Your task to perform on an android device: Open Google Image 0: 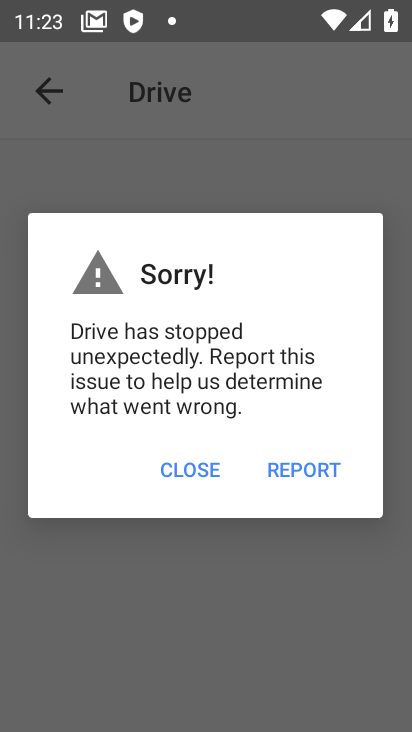
Step 0: press home button
Your task to perform on an android device: Open Google Image 1: 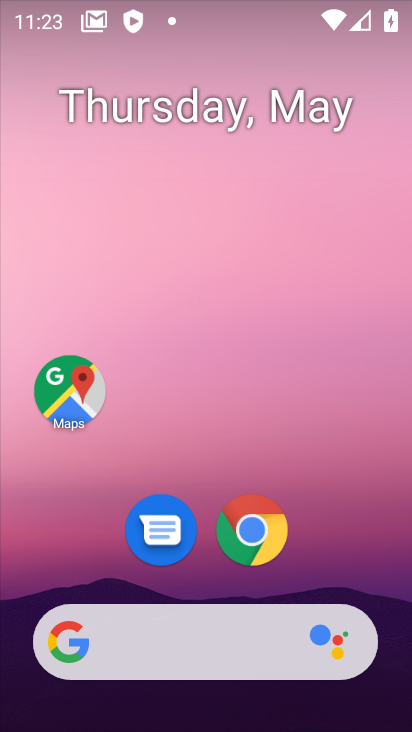
Step 1: drag from (371, 553) to (357, 263)
Your task to perform on an android device: Open Google Image 2: 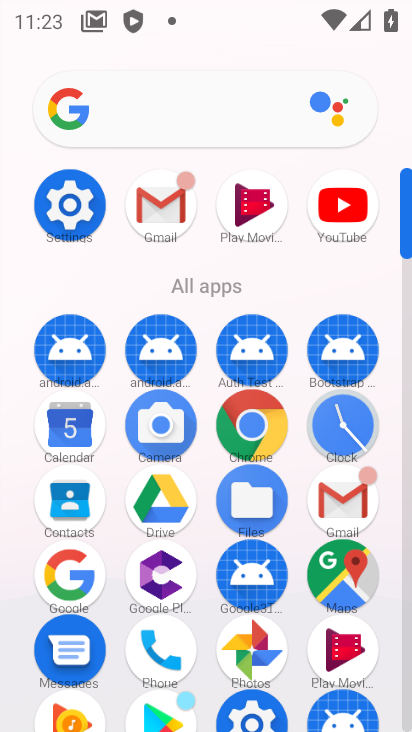
Step 2: click (75, 579)
Your task to perform on an android device: Open Google Image 3: 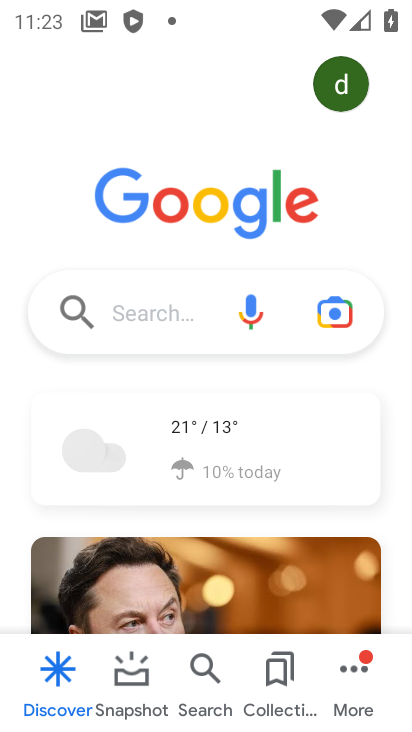
Step 3: task complete